Your task to perform on an android device: Go to calendar. Show me events next week Image 0: 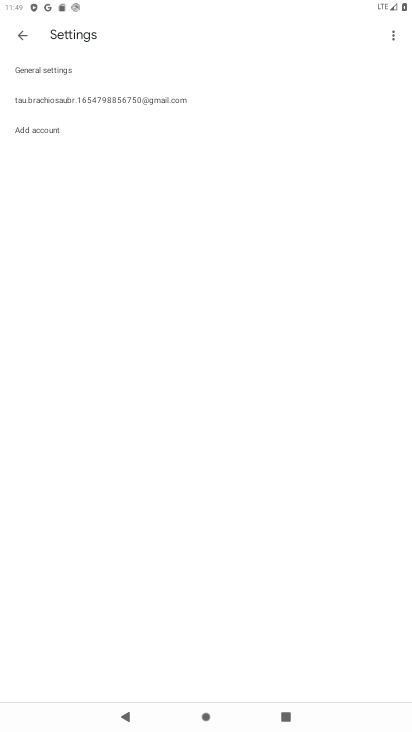
Step 0: press home button
Your task to perform on an android device: Go to calendar. Show me events next week Image 1: 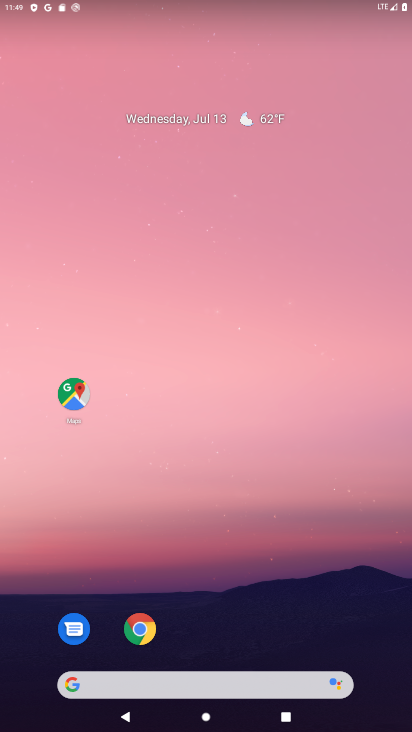
Step 1: click (202, 119)
Your task to perform on an android device: Go to calendar. Show me events next week Image 2: 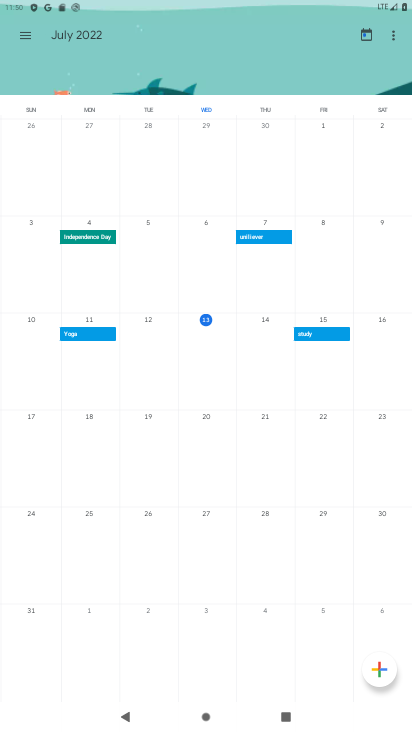
Step 2: click (19, 33)
Your task to perform on an android device: Go to calendar. Show me events next week Image 3: 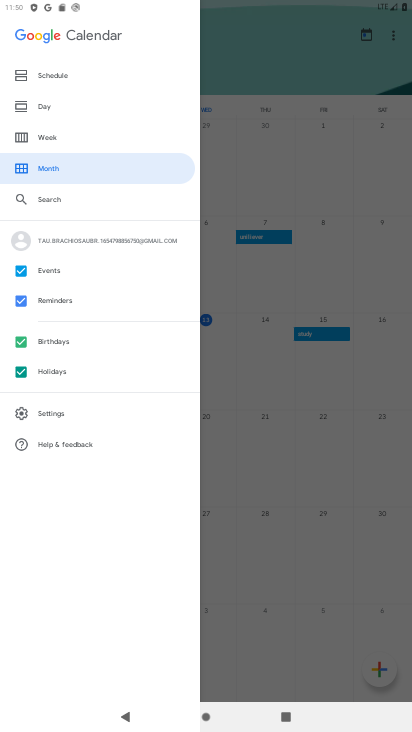
Step 3: click (67, 132)
Your task to perform on an android device: Go to calendar. Show me events next week Image 4: 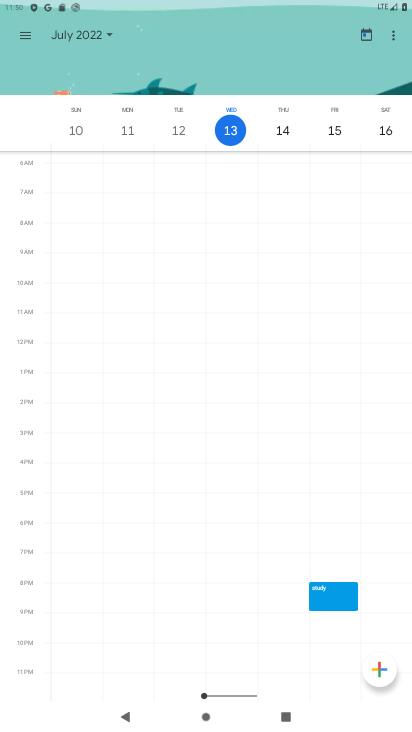
Step 4: click (100, 41)
Your task to perform on an android device: Go to calendar. Show me events next week Image 5: 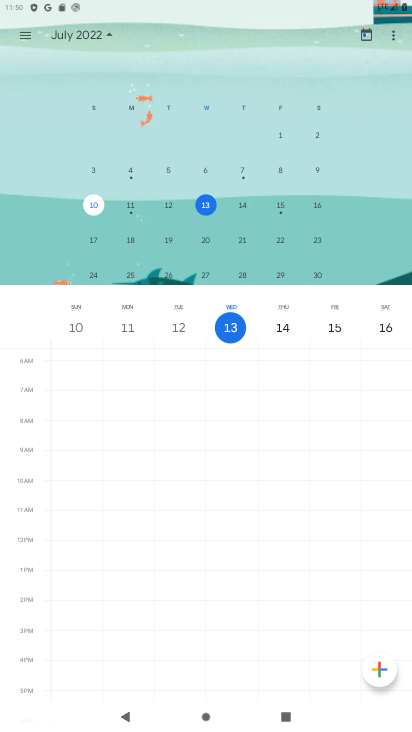
Step 5: click (207, 246)
Your task to perform on an android device: Go to calendar. Show me events next week Image 6: 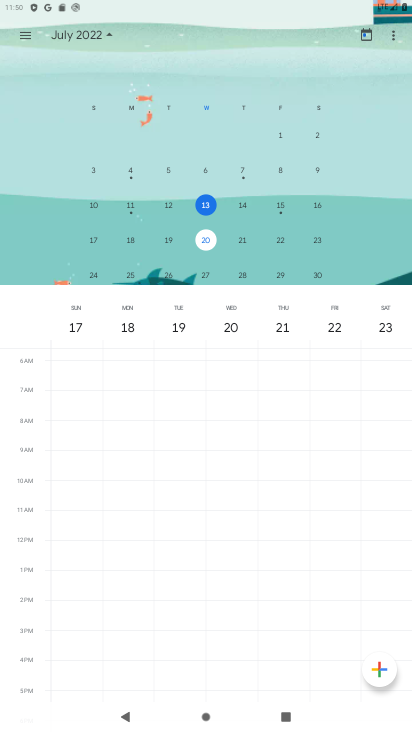
Step 6: task complete